Your task to perform on an android device: Is it going to rain today? Image 0: 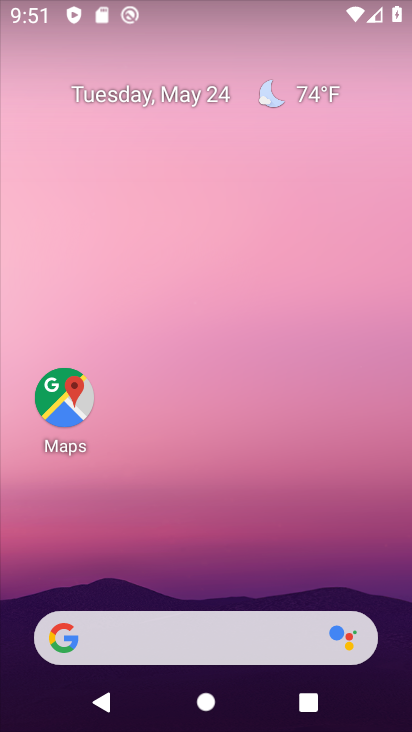
Step 0: click (207, 623)
Your task to perform on an android device: Is it going to rain today? Image 1: 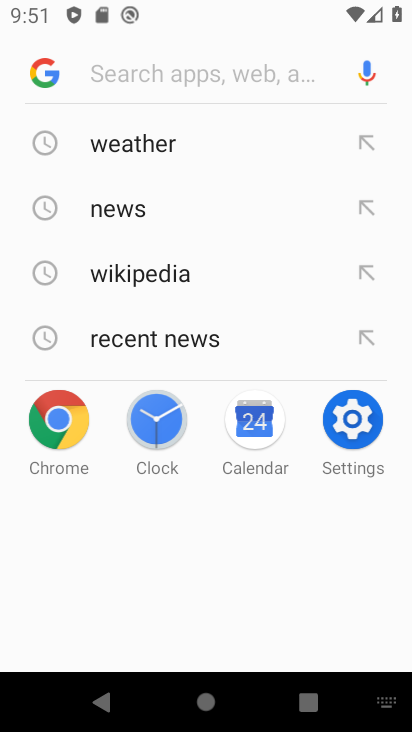
Step 1: click (145, 143)
Your task to perform on an android device: Is it going to rain today? Image 2: 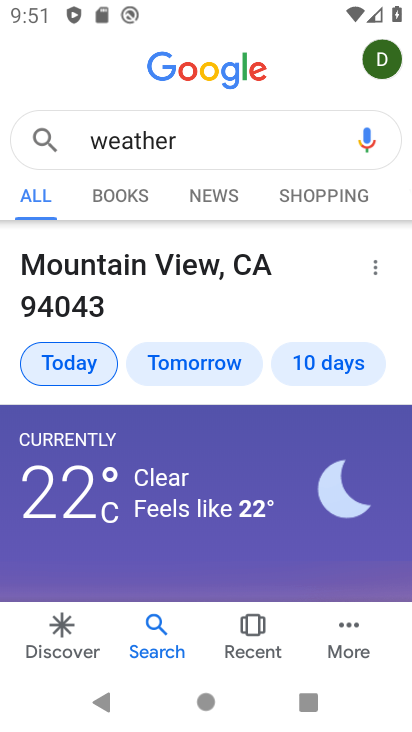
Step 2: click (71, 369)
Your task to perform on an android device: Is it going to rain today? Image 3: 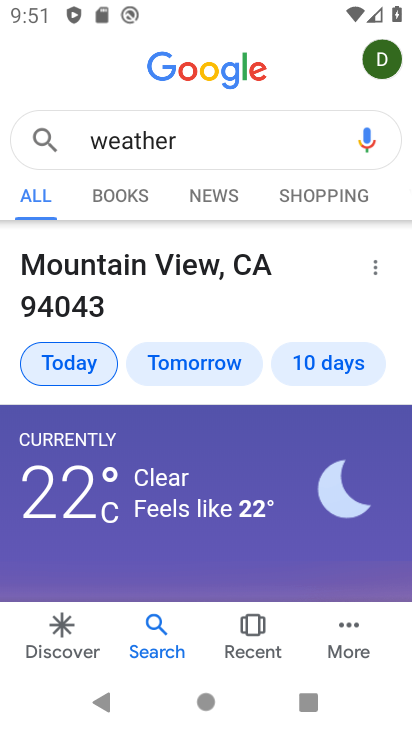
Step 3: task complete